Your task to perform on an android device: Go to privacy settings Image 0: 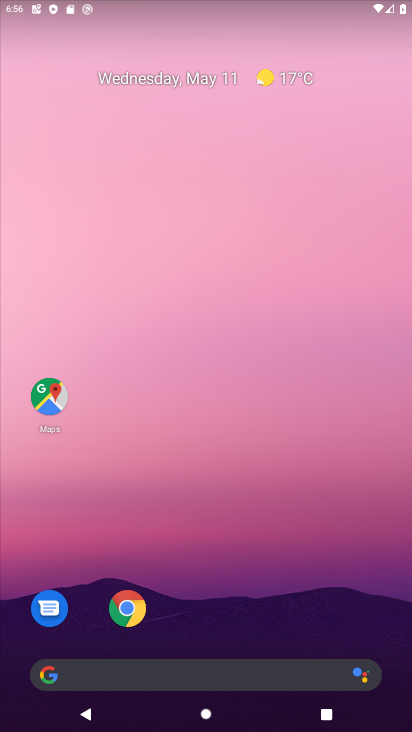
Step 0: drag from (216, 616) to (259, 86)
Your task to perform on an android device: Go to privacy settings Image 1: 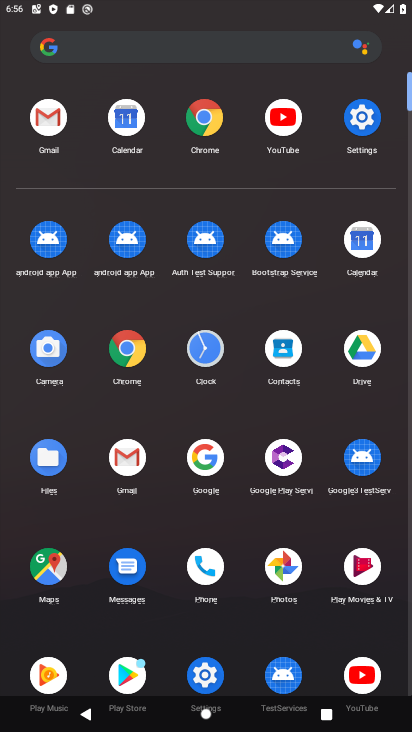
Step 1: click (364, 129)
Your task to perform on an android device: Go to privacy settings Image 2: 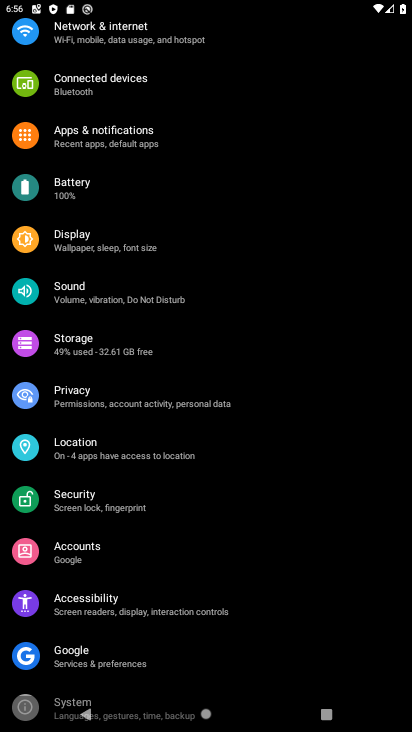
Step 2: click (126, 414)
Your task to perform on an android device: Go to privacy settings Image 3: 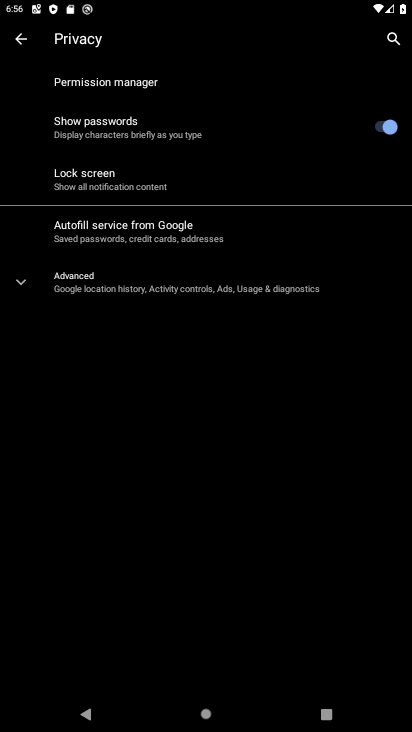
Step 3: task complete